Your task to perform on an android device: turn on showing notifications on the lock screen Image 0: 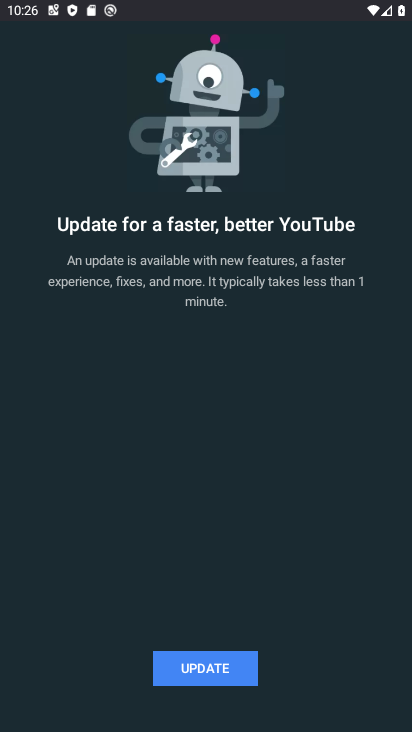
Step 0: press home button
Your task to perform on an android device: turn on showing notifications on the lock screen Image 1: 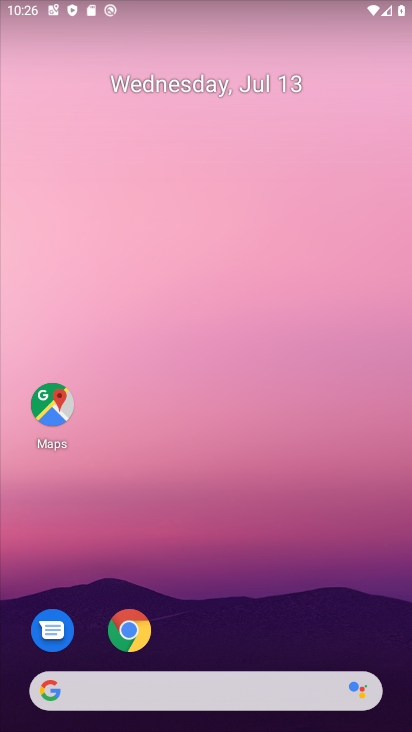
Step 1: drag from (310, 602) to (230, 2)
Your task to perform on an android device: turn on showing notifications on the lock screen Image 2: 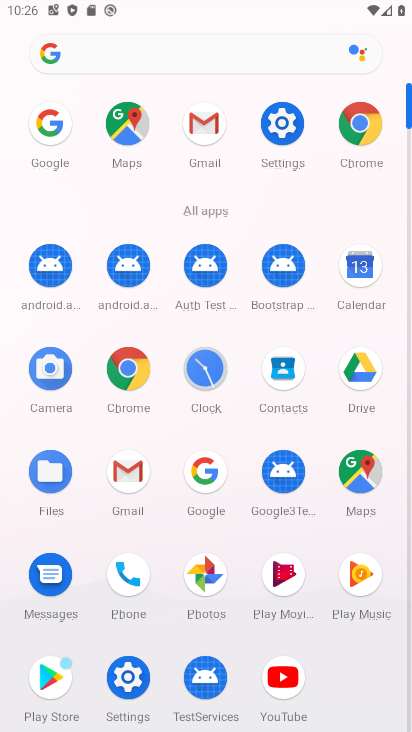
Step 2: click (272, 121)
Your task to perform on an android device: turn on showing notifications on the lock screen Image 3: 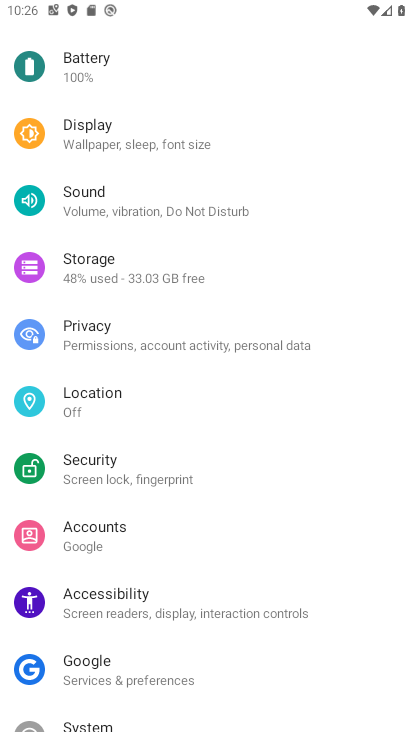
Step 3: drag from (101, 114) to (99, 475)
Your task to perform on an android device: turn on showing notifications on the lock screen Image 4: 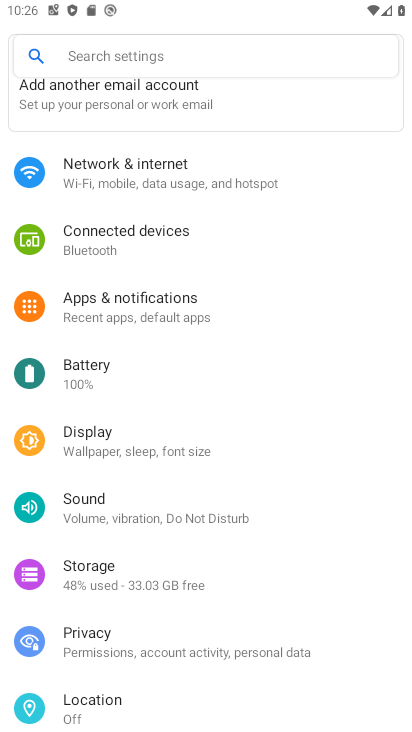
Step 4: click (139, 308)
Your task to perform on an android device: turn on showing notifications on the lock screen Image 5: 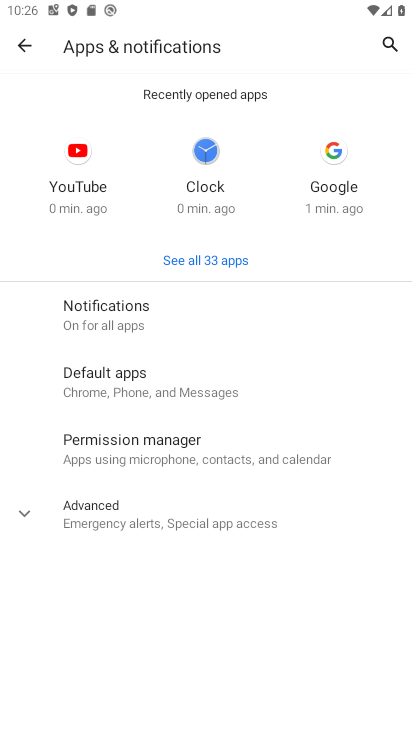
Step 5: click (129, 307)
Your task to perform on an android device: turn on showing notifications on the lock screen Image 6: 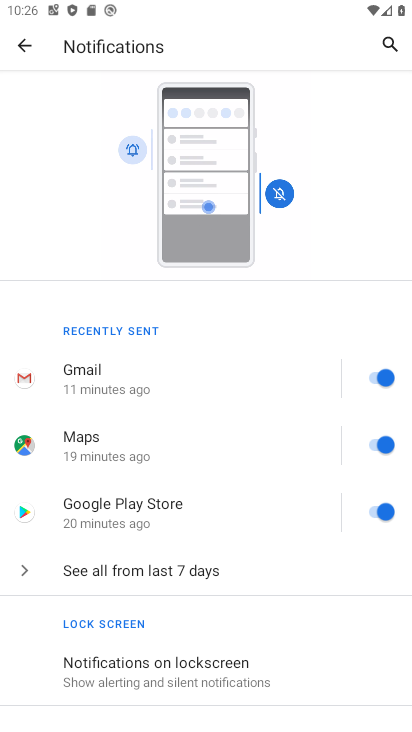
Step 6: click (163, 668)
Your task to perform on an android device: turn on showing notifications on the lock screen Image 7: 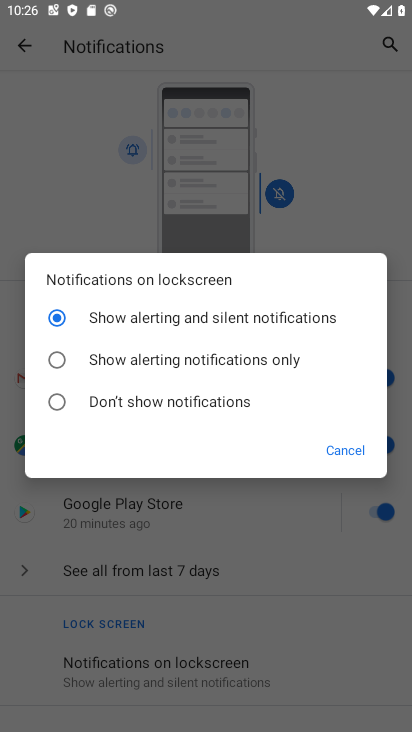
Step 7: click (150, 361)
Your task to perform on an android device: turn on showing notifications on the lock screen Image 8: 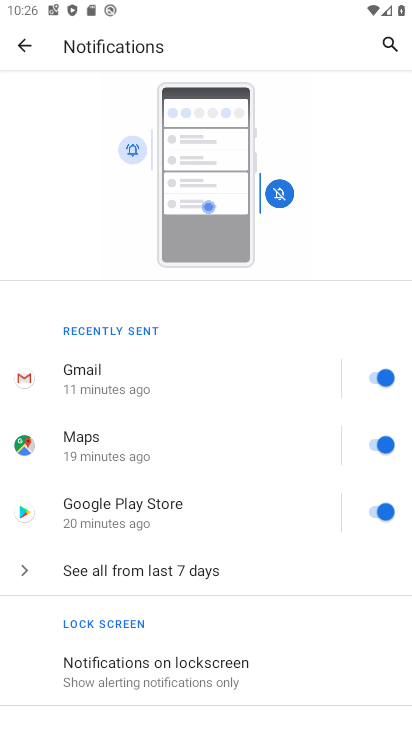
Step 8: task complete